Your task to perform on an android device: Search for sushi restaurants on Maps Image 0: 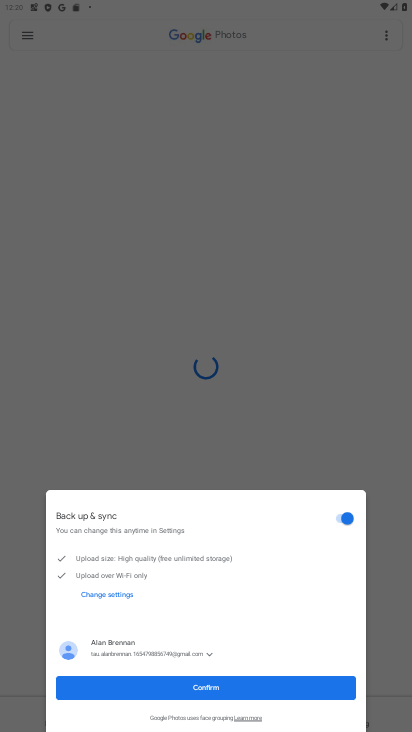
Step 0: press home button
Your task to perform on an android device: Search for sushi restaurants on Maps Image 1: 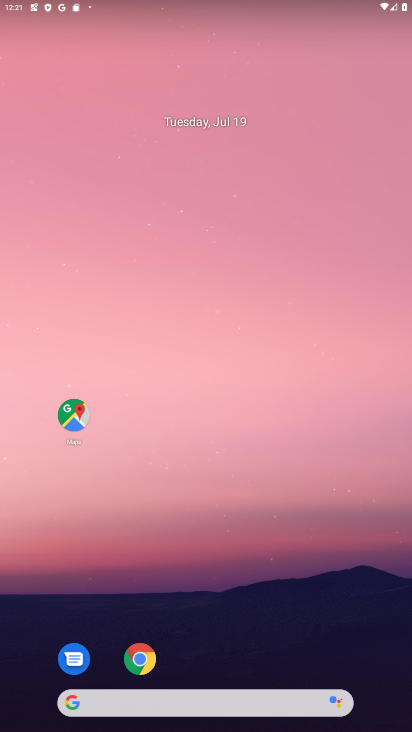
Step 1: click (72, 416)
Your task to perform on an android device: Search for sushi restaurants on Maps Image 2: 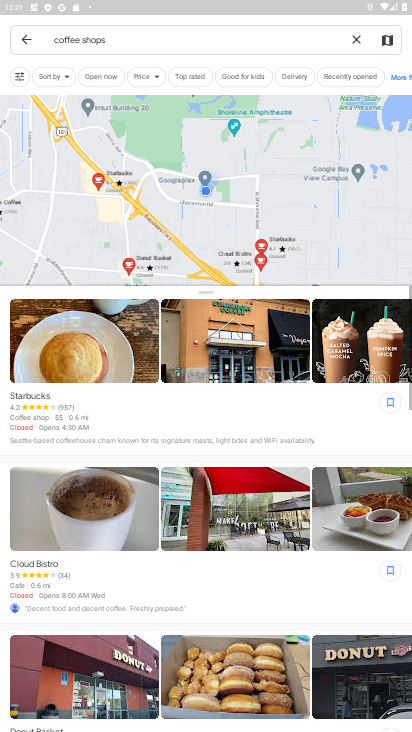
Step 2: click (356, 40)
Your task to perform on an android device: Search for sushi restaurants on Maps Image 3: 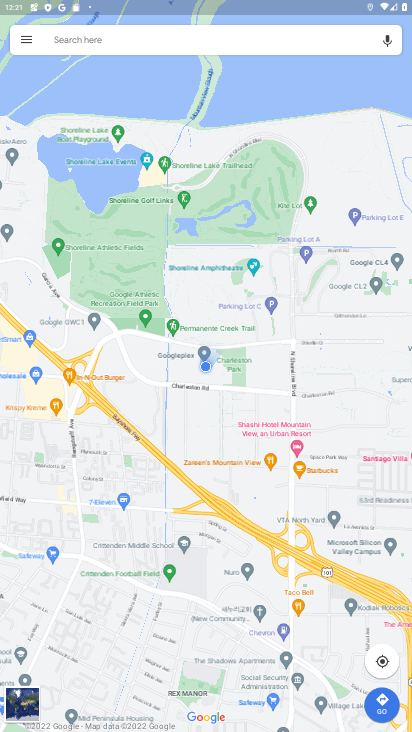
Step 3: click (208, 44)
Your task to perform on an android device: Search for sushi restaurants on Maps Image 4: 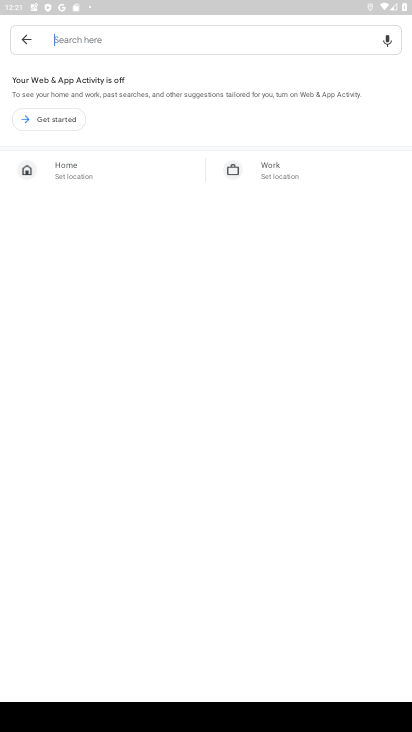
Step 4: type "sushi restaurants"
Your task to perform on an android device: Search for sushi restaurants on Maps Image 5: 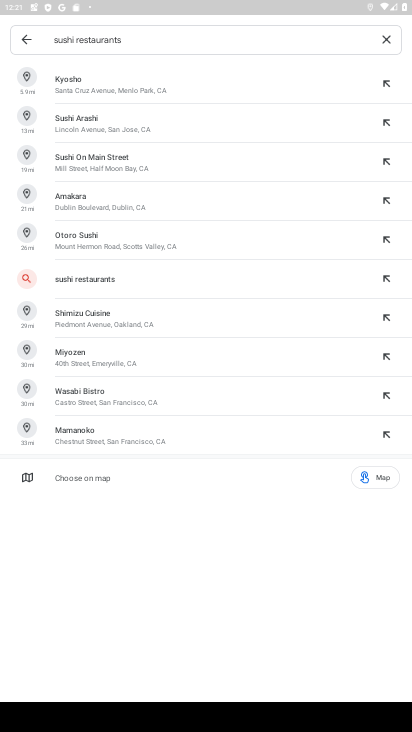
Step 5: click (108, 284)
Your task to perform on an android device: Search for sushi restaurants on Maps Image 6: 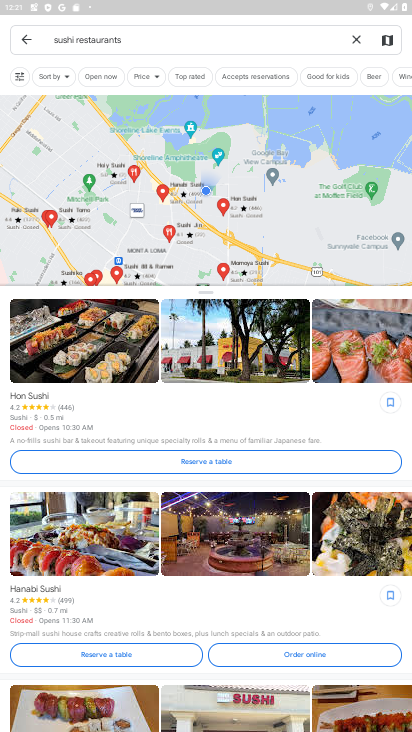
Step 6: task complete